Your task to perform on an android device: Open Google Maps and go to "Timeline" Image 0: 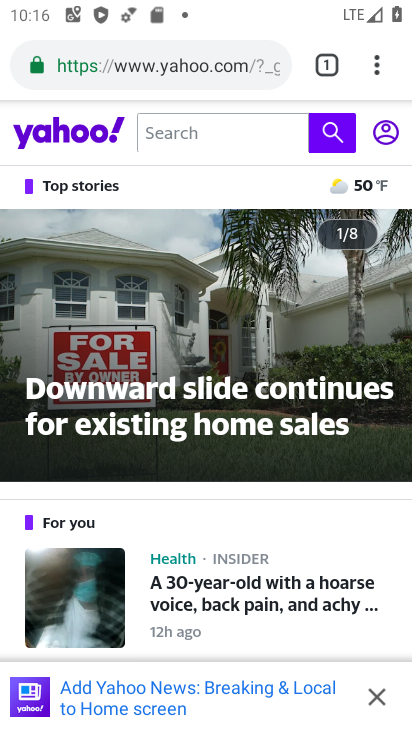
Step 0: press home button
Your task to perform on an android device: Open Google Maps and go to "Timeline" Image 1: 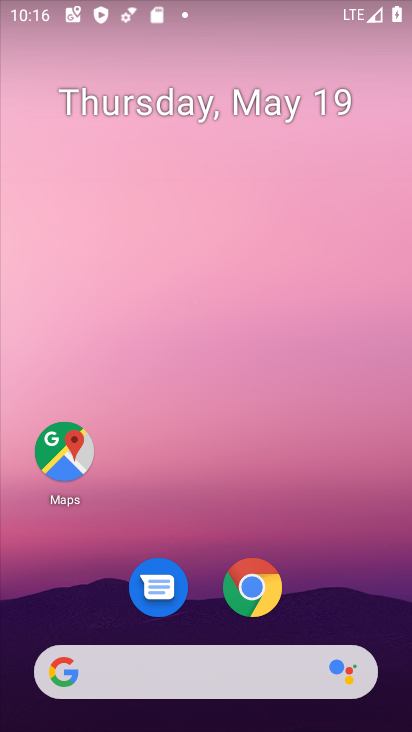
Step 1: click (54, 443)
Your task to perform on an android device: Open Google Maps and go to "Timeline" Image 2: 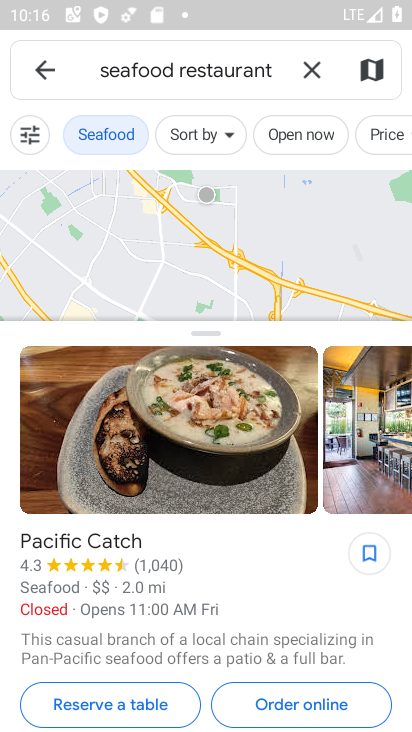
Step 2: click (48, 78)
Your task to perform on an android device: Open Google Maps and go to "Timeline" Image 3: 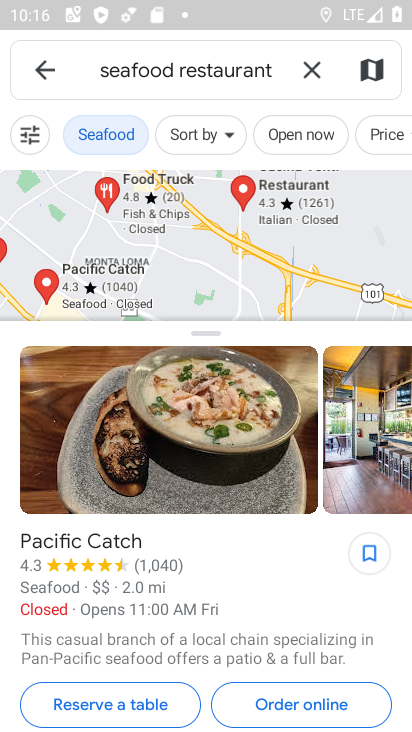
Step 3: click (48, 78)
Your task to perform on an android device: Open Google Maps and go to "Timeline" Image 4: 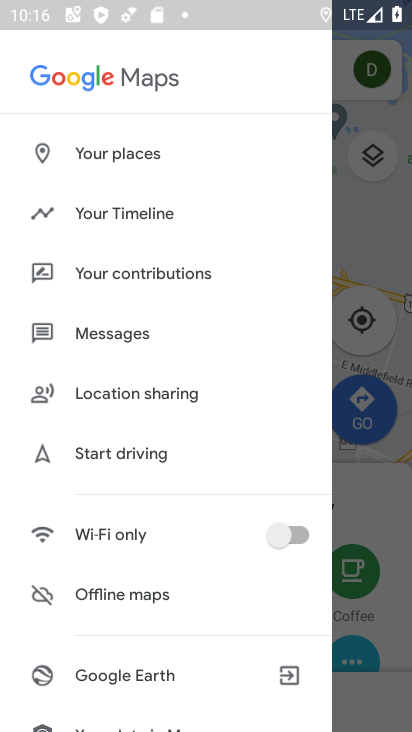
Step 4: click (190, 215)
Your task to perform on an android device: Open Google Maps and go to "Timeline" Image 5: 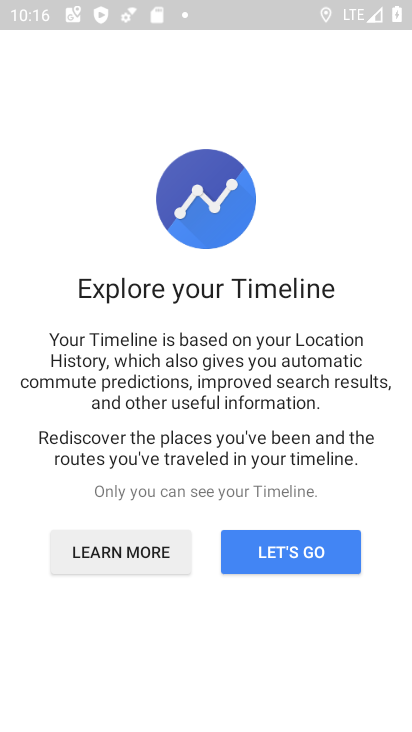
Step 5: click (287, 549)
Your task to perform on an android device: Open Google Maps and go to "Timeline" Image 6: 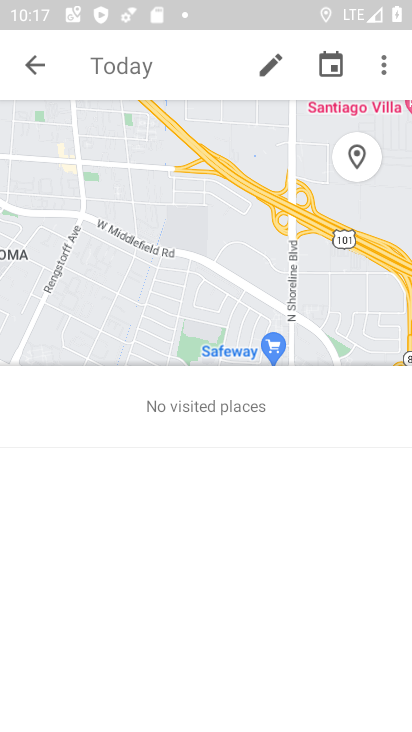
Step 6: task complete